Your task to perform on an android device: see creations saved in the google photos Image 0: 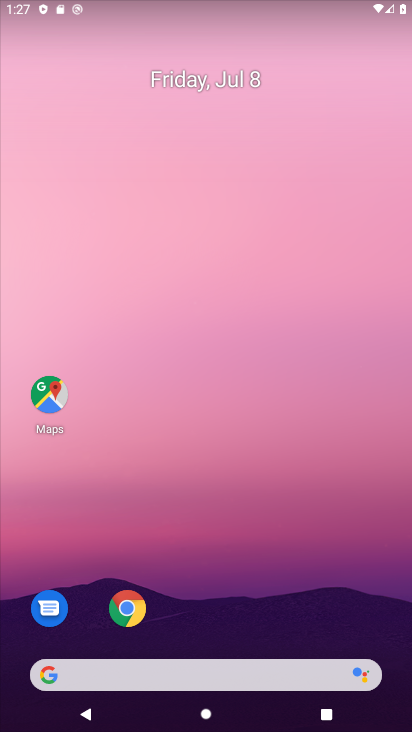
Step 0: drag from (197, 646) to (219, 177)
Your task to perform on an android device: see creations saved in the google photos Image 1: 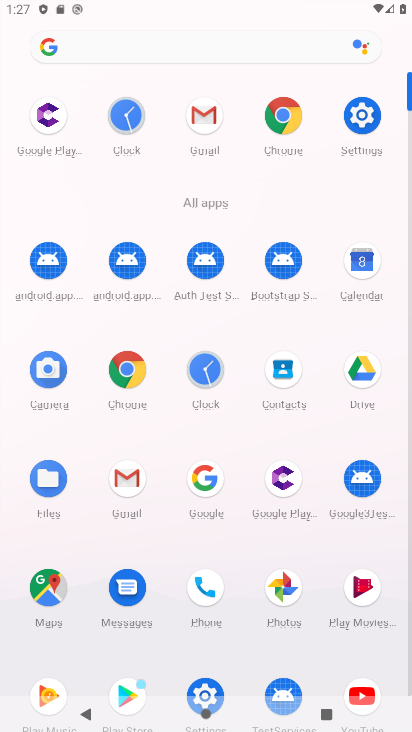
Step 1: click (276, 587)
Your task to perform on an android device: see creations saved in the google photos Image 2: 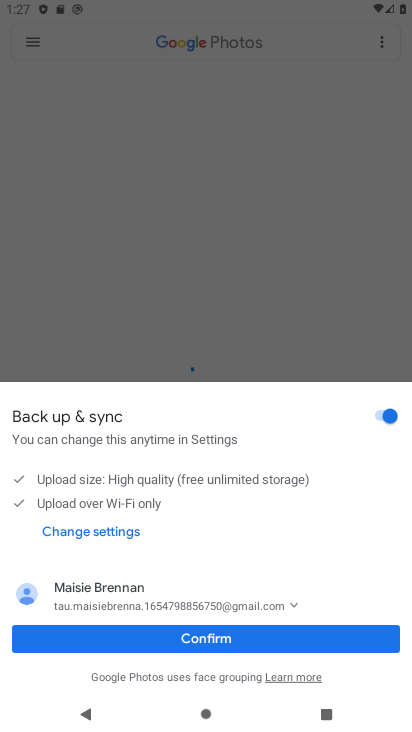
Step 2: click (215, 637)
Your task to perform on an android device: see creations saved in the google photos Image 3: 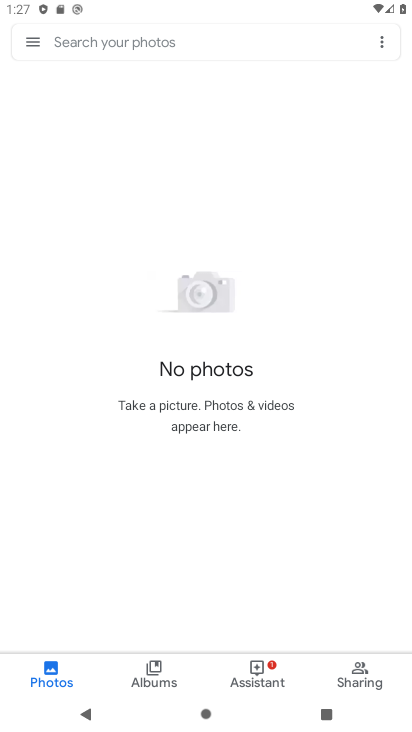
Step 3: click (162, 45)
Your task to perform on an android device: see creations saved in the google photos Image 4: 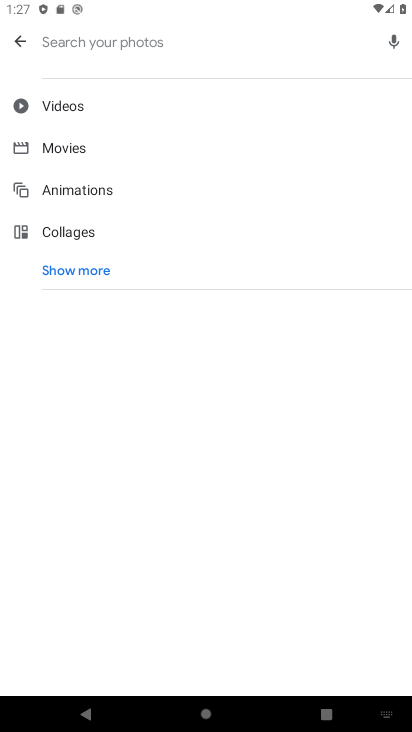
Step 4: click (89, 265)
Your task to perform on an android device: see creations saved in the google photos Image 5: 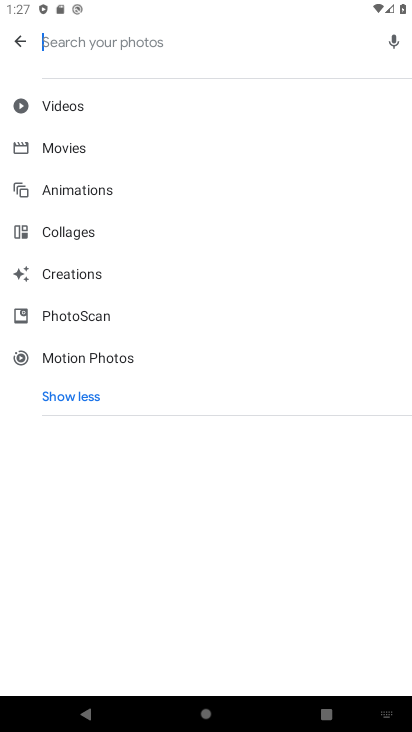
Step 5: click (82, 281)
Your task to perform on an android device: see creations saved in the google photos Image 6: 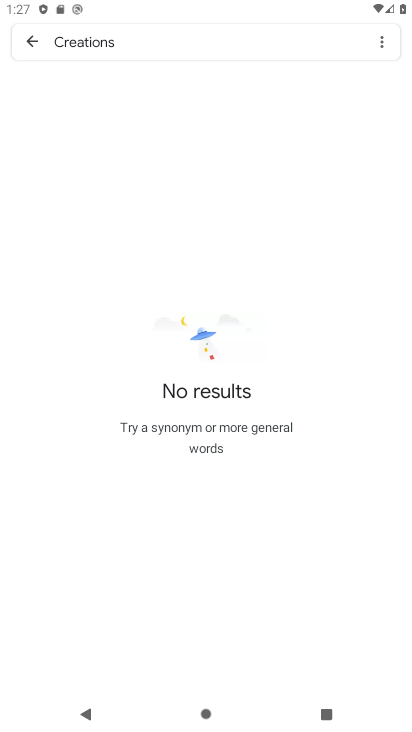
Step 6: task complete